Your task to perform on an android device: Turn on the flashlight Image 0: 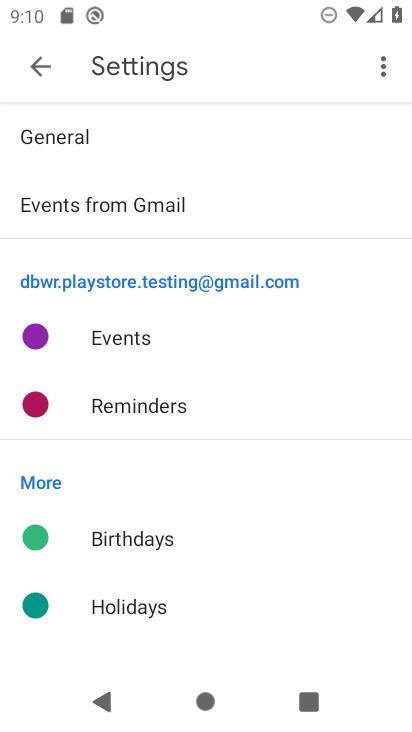
Step 0: press home button
Your task to perform on an android device: Turn on the flashlight Image 1: 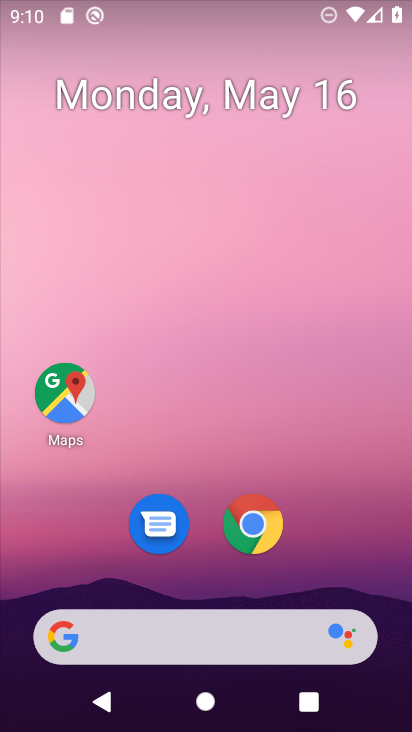
Step 1: drag from (328, 506) to (311, 92)
Your task to perform on an android device: Turn on the flashlight Image 2: 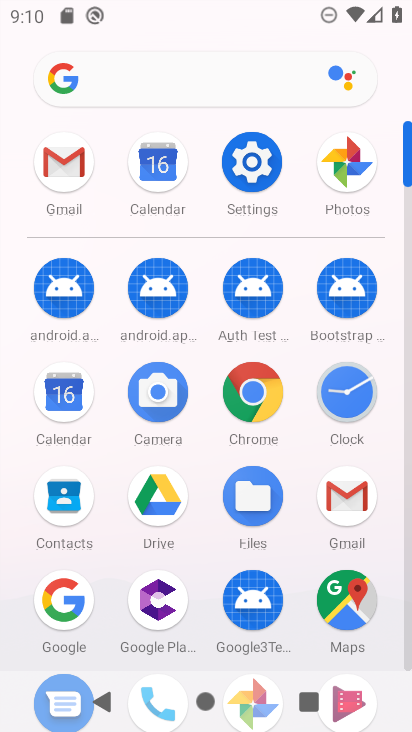
Step 2: click (258, 158)
Your task to perform on an android device: Turn on the flashlight Image 3: 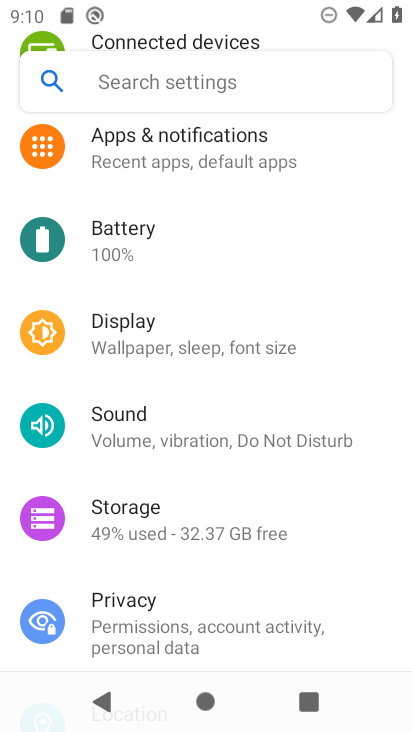
Step 3: drag from (254, 153) to (193, 641)
Your task to perform on an android device: Turn on the flashlight Image 4: 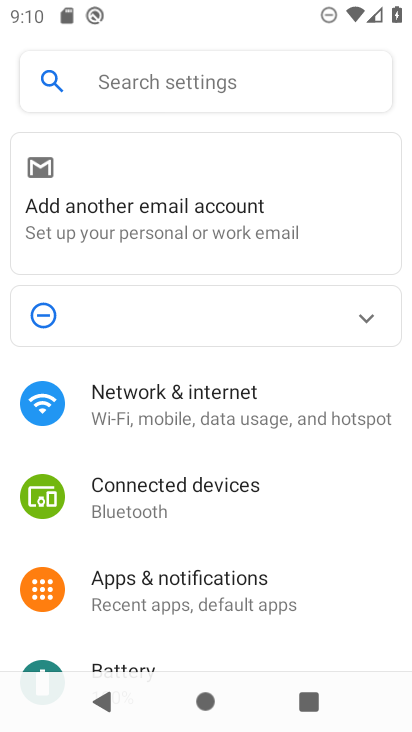
Step 4: click (292, 82)
Your task to perform on an android device: Turn on the flashlight Image 5: 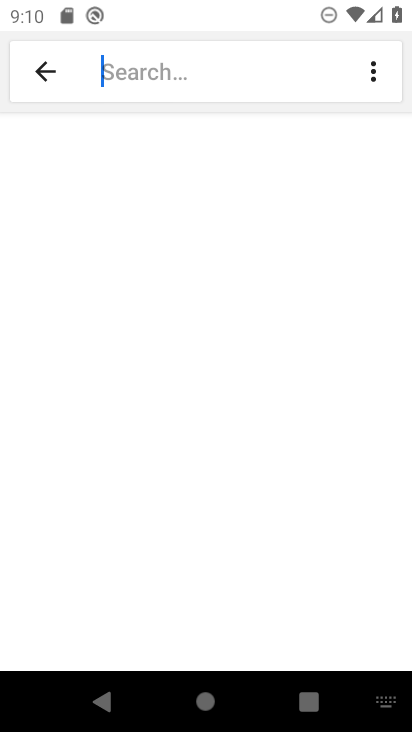
Step 5: type "Flashlight"
Your task to perform on an android device: Turn on the flashlight Image 6: 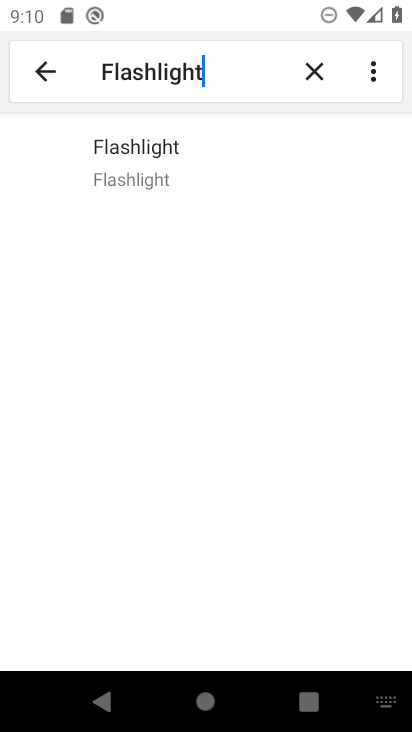
Step 6: click (144, 152)
Your task to perform on an android device: Turn on the flashlight Image 7: 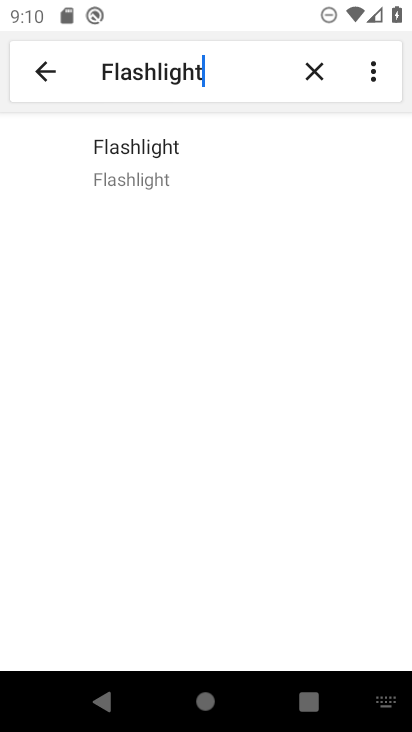
Step 7: click (144, 157)
Your task to perform on an android device: Turn on the flashlight Image 8: 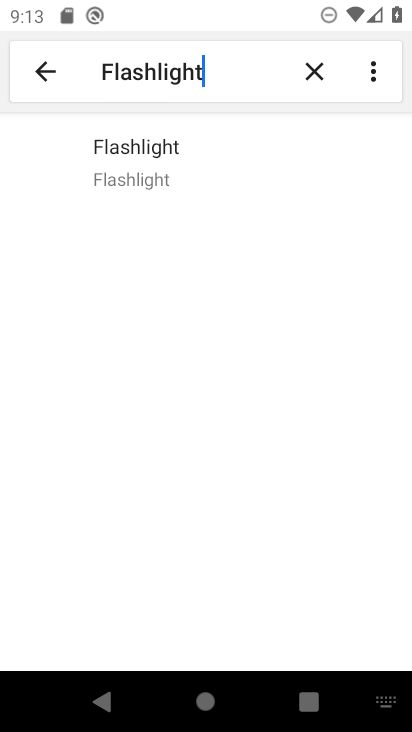
Step 8: task complete